Your task to perform on an android device: open a new tab in the chrome app Image 0: 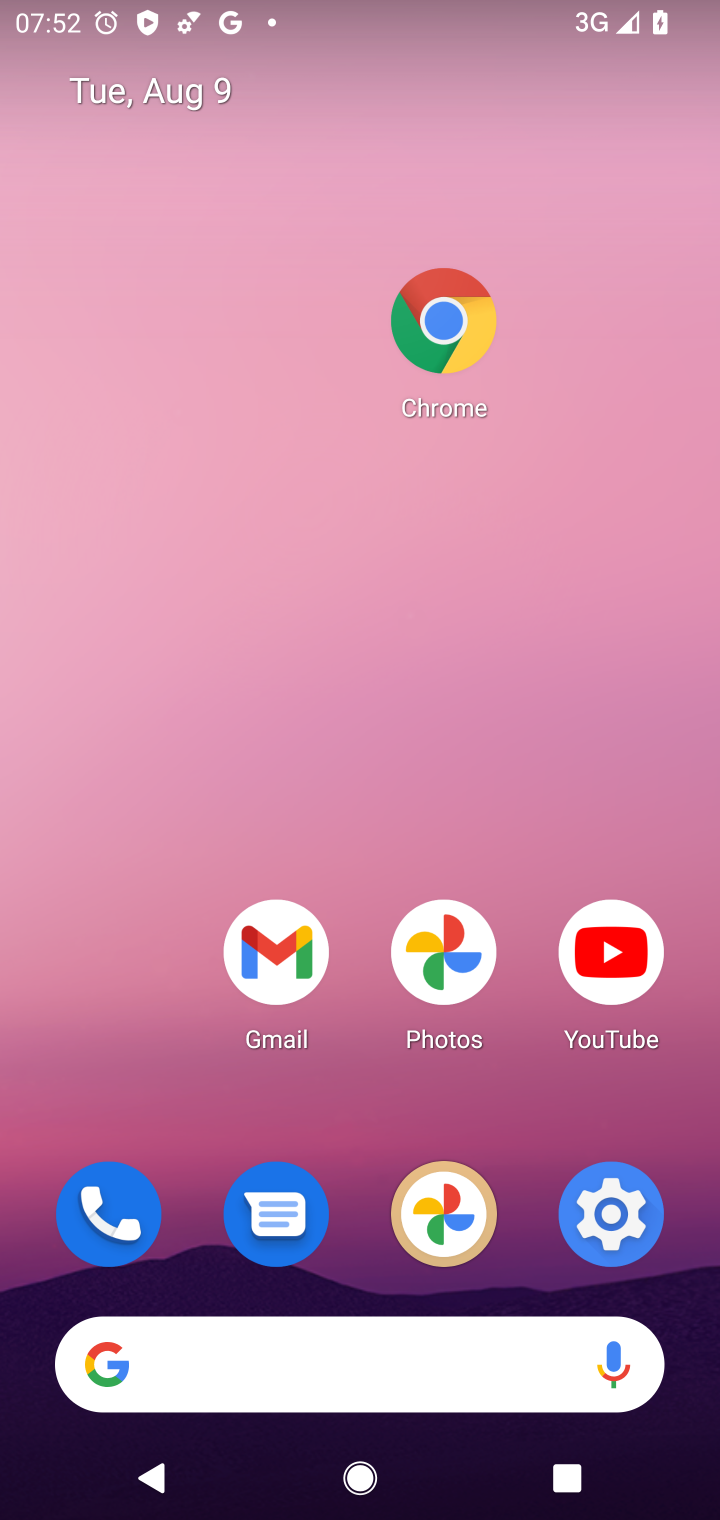
Step 0: press home button
Your task to perform on an android device: open a new tab in the chrome app Image 1: 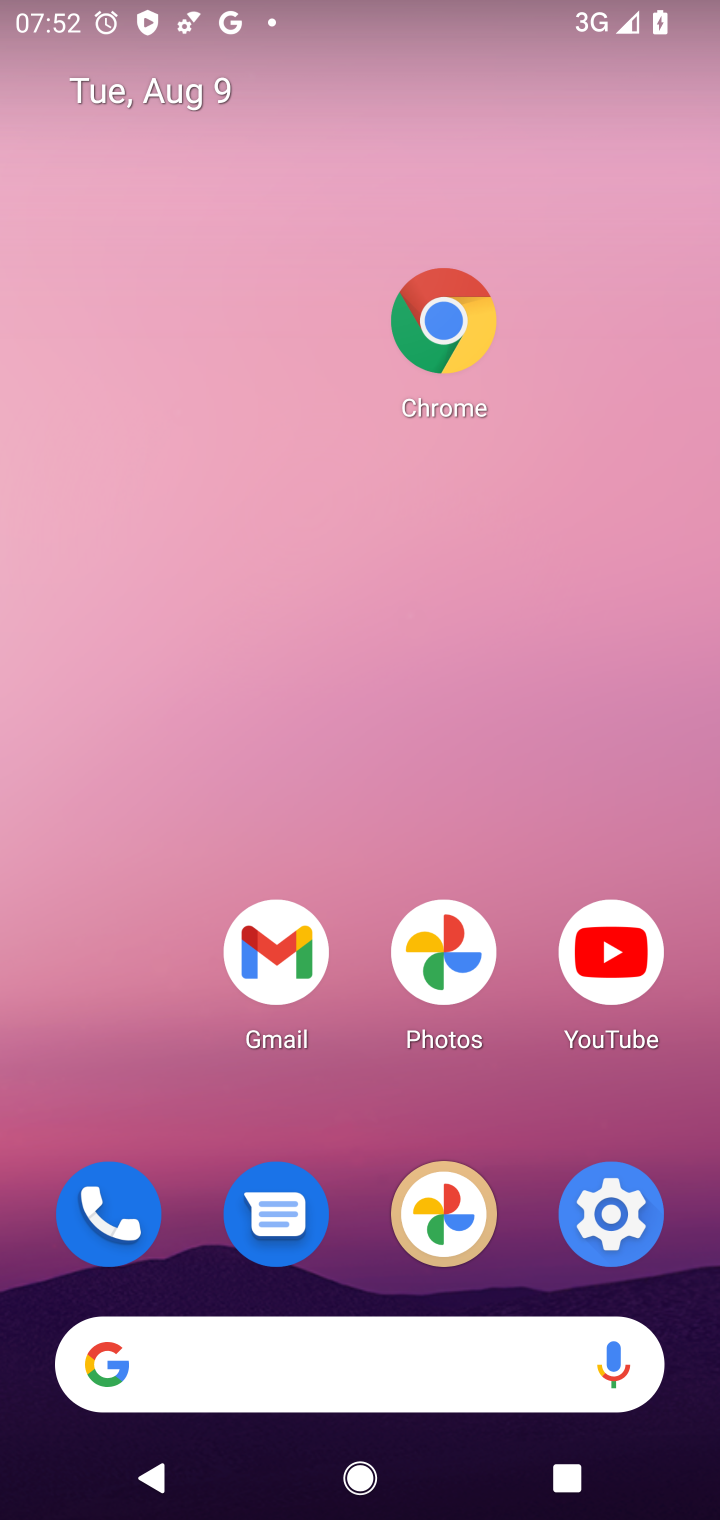
Step 1: click (441, 314)
Your task to perform on an android device: open a new tab in the chrome app Image 2: 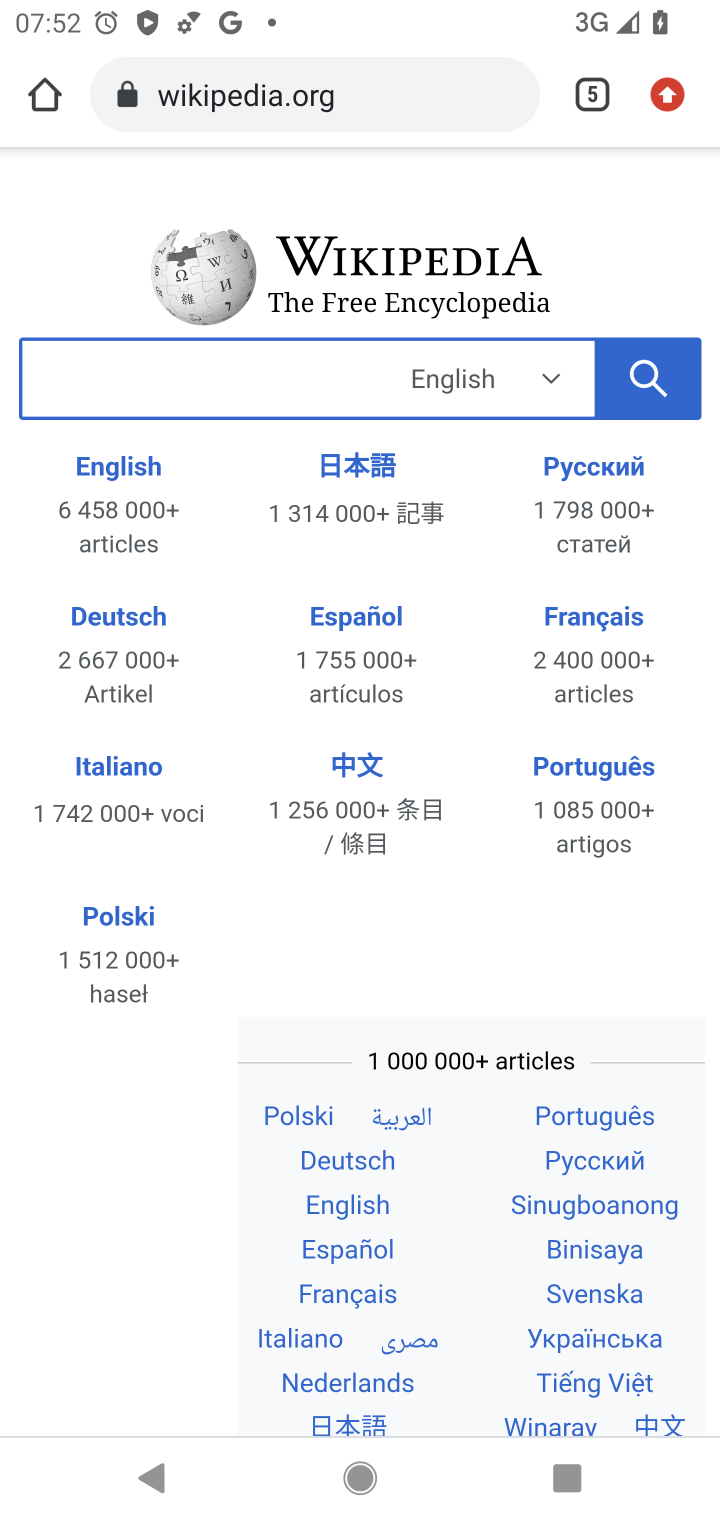
Step 2: click (589, 105)
Your task to perform on an android device: open a new tab in the chrome app Image 3: 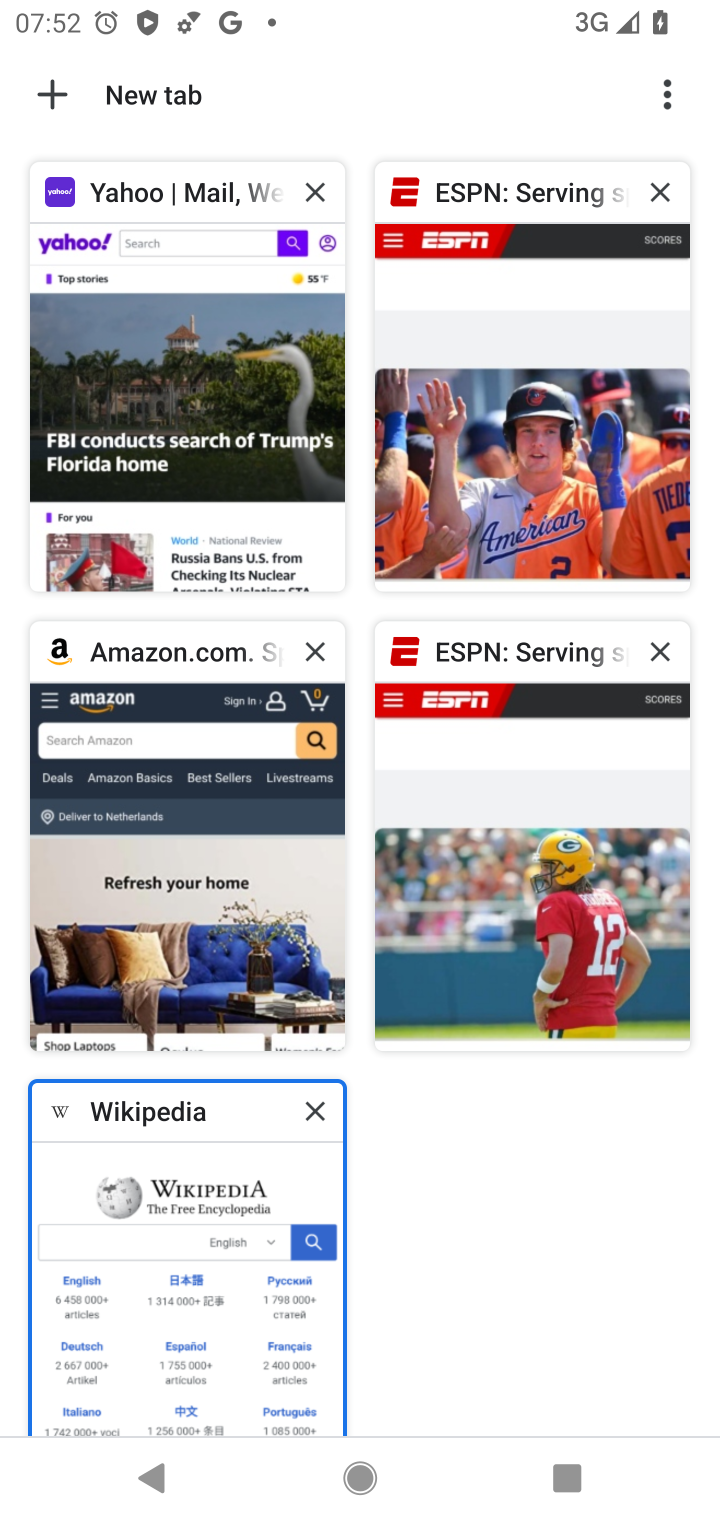
Step 3: click (66, 91)
Your task to perform on an android device: open a new tab in the chrome app Image 4: 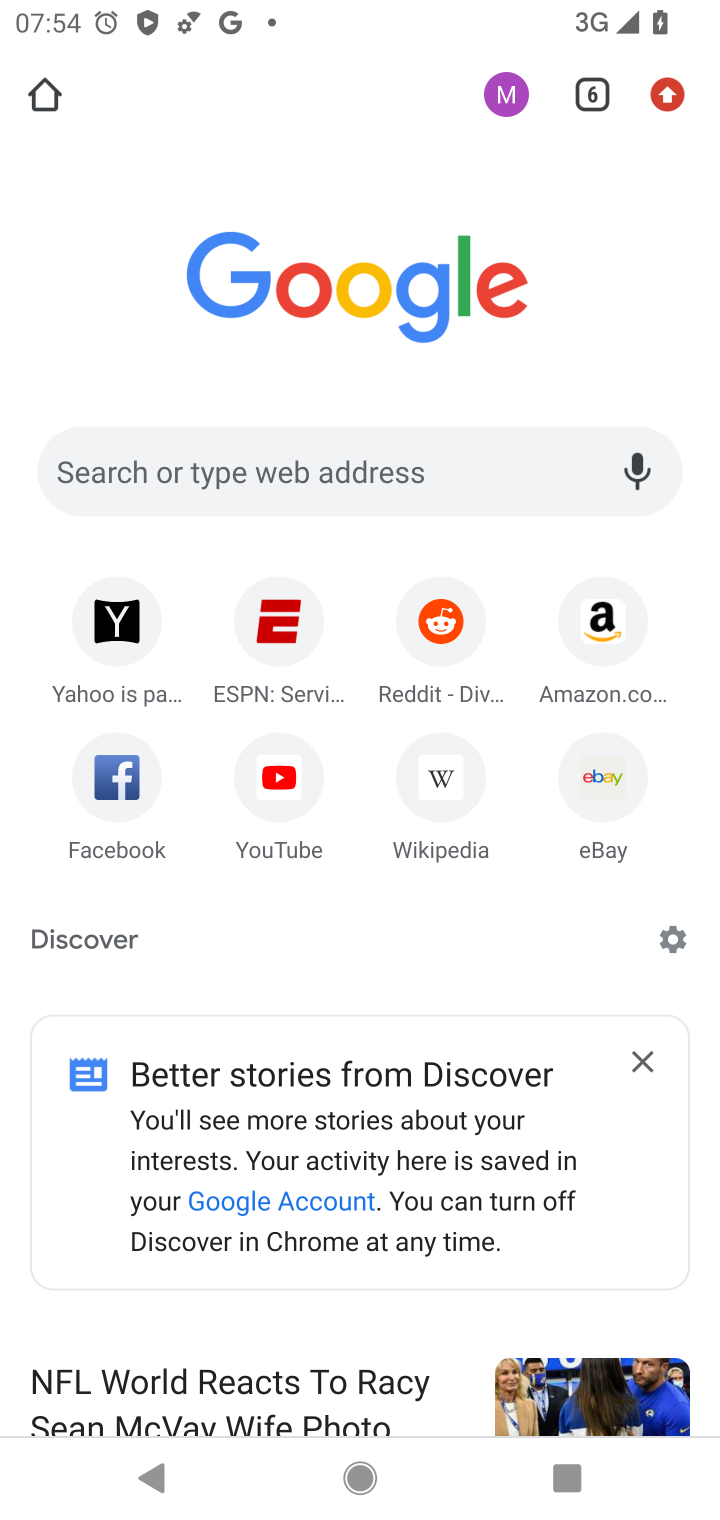
Step 4: task complete